Your task to perform on an android device: turn off priority inbox in the gmail app Image 0: 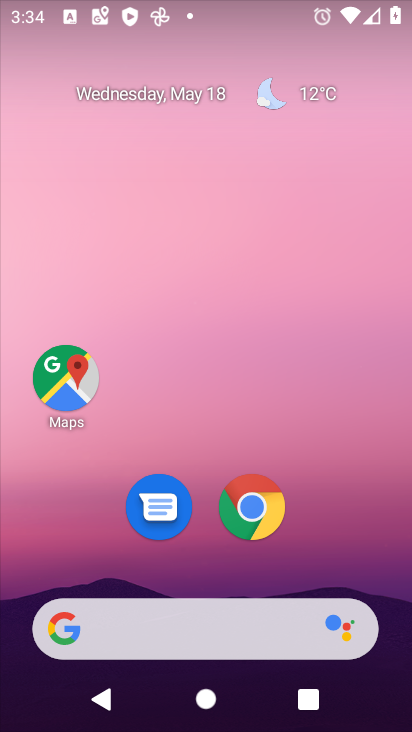
Step 0: drag from (403, 619) to (319, 84)
Your task to perform on an android device: turn off priority inbox in the gmail app Image 1: 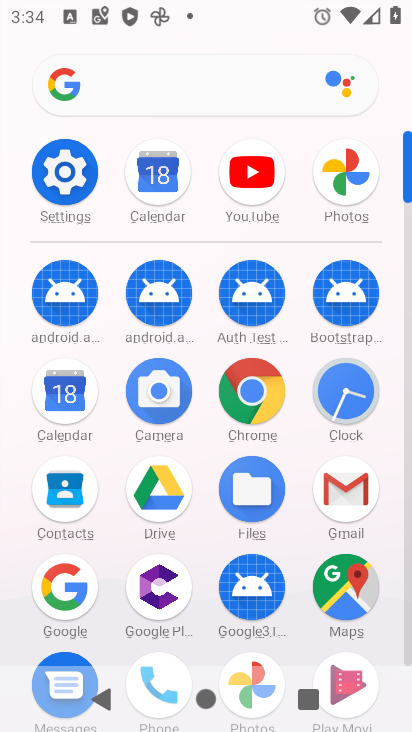
Step 1: click (406, 649)
Your task to perform on an android device: turn off priority inbox in the gmail app Image 2: 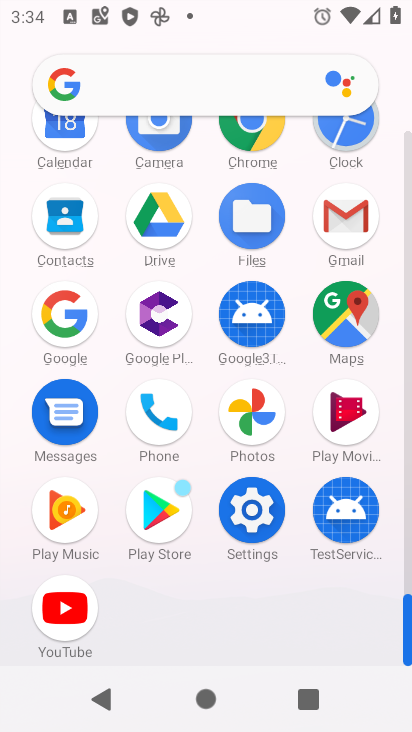
Step 2: click (343, 214)
Your task to perform on an android device: turn off priority inbox in the gmail app Image 3: 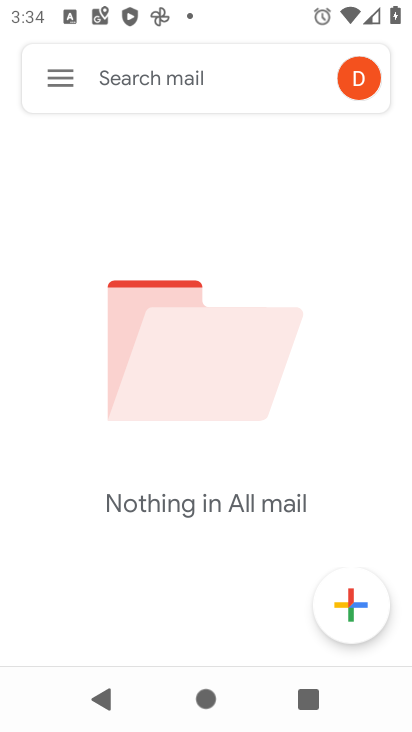
Step 3: click (58, 77)
Your task to perform on an android device: turn off priority inbox in the gmail app Image 4: 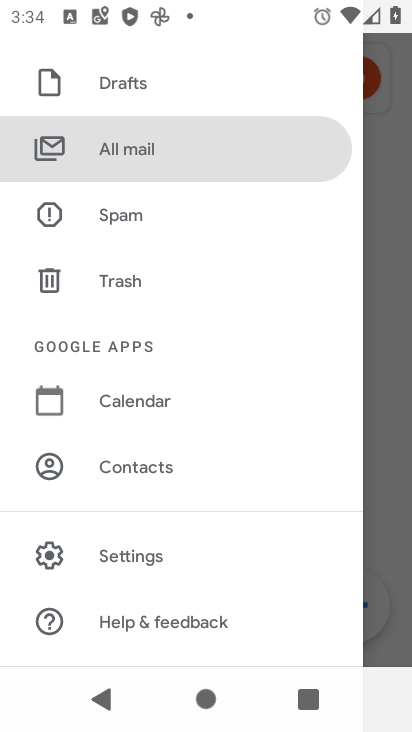
Step 4: click (116, 548)
Your task to perform on an android device: turn off priority inbox in the gmail app Image 5: 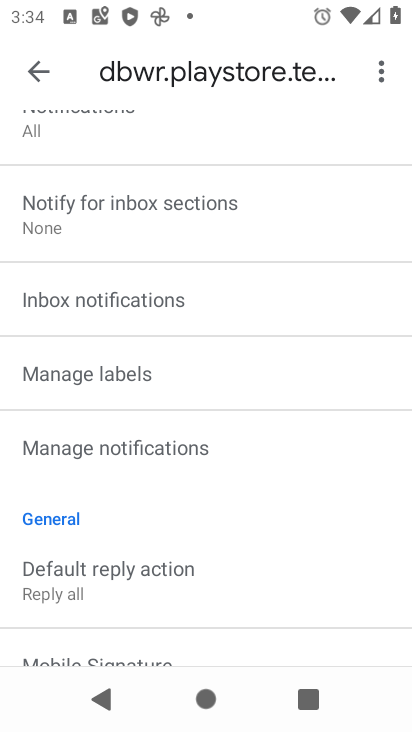
Step 5: drag from (292, 197) to (208, 570)
Your task to perform on an android device: turn off priority inbox in the gmail app Image 6: 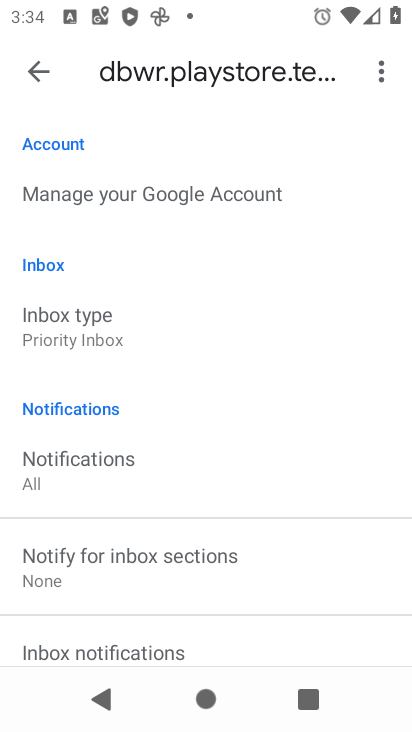
Step 6: drag from (261, 258) to (211, 543)
Your task to perform on an android device: turn off priority inbox in the gmail app Image 7: 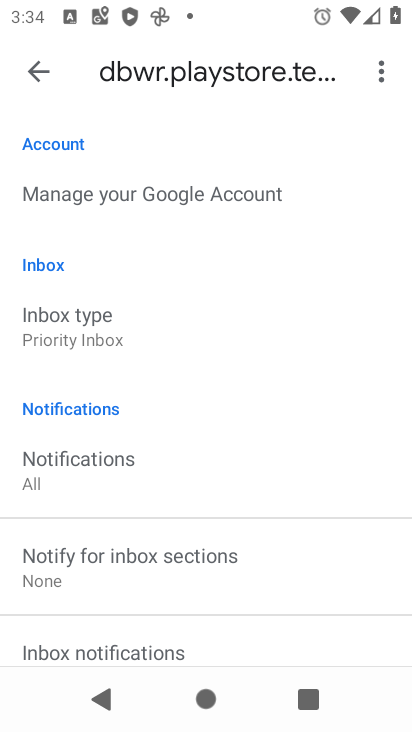
Step 7: click (67, 326)
Your task to perform on an android device: turn off priority inbox in the gmail app Image 8: 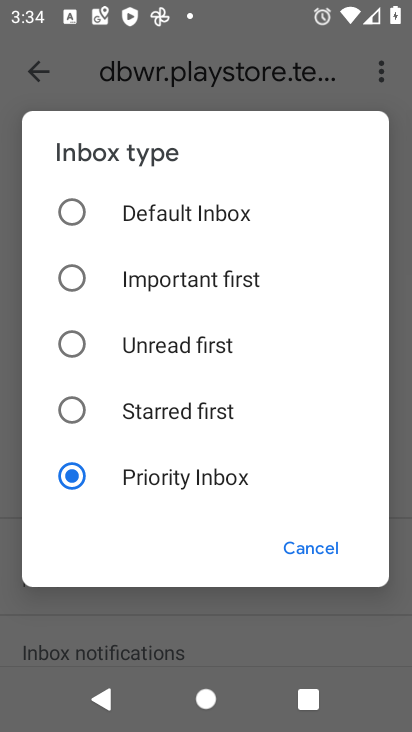
Step 8: click (65, 198)
Your task to perform on an android device: turn off priority inbox in the gmail app Image 9: 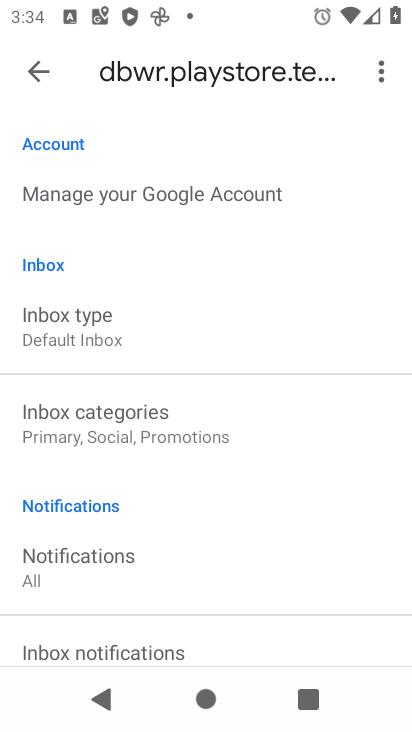
Step 9: task complete